Your task to perform on an android device: What's the weather going to be tomorrow? Image 0: 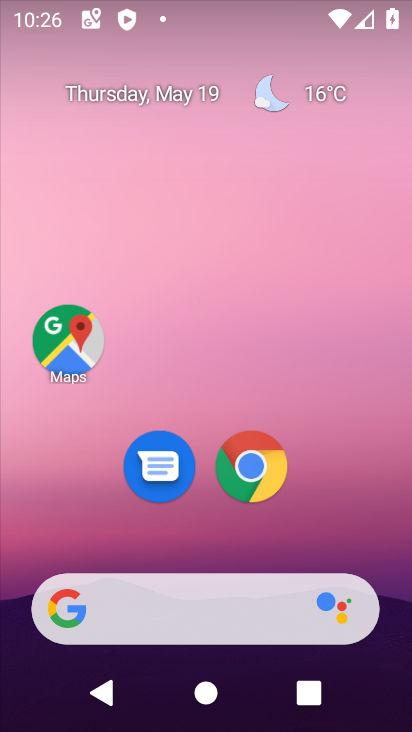
Step 0: click (253, 444)
Your task to perform on an android device: What's the weather going to be tomorrow? Image 1: 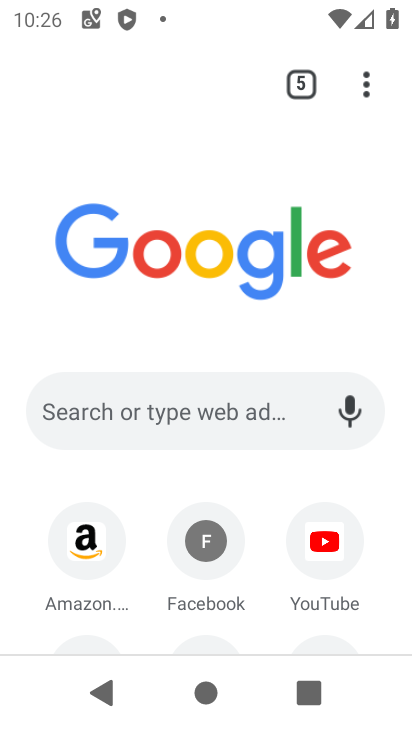
Step 1: click (230, 409)
Your task to perform on an android device: What's the weather going to be tomorrow? Image 2: 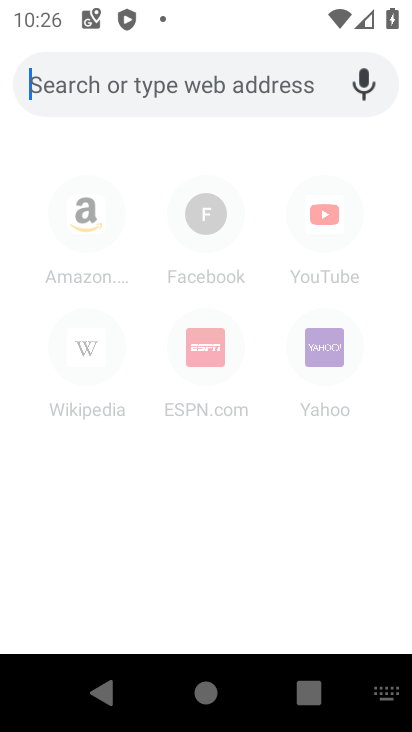
Step 2: type "What's the weather going to be tomorrow?"
Your task to perform on an android device: What's the weather going to be tomorrow? Image 3: 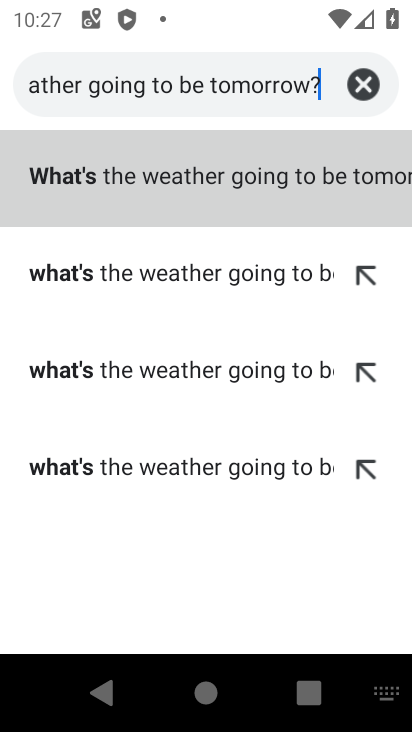
Step 3: click (353, 163)
Your task to perform on an android device: What's the weather going to be tomorrow? Image 4: 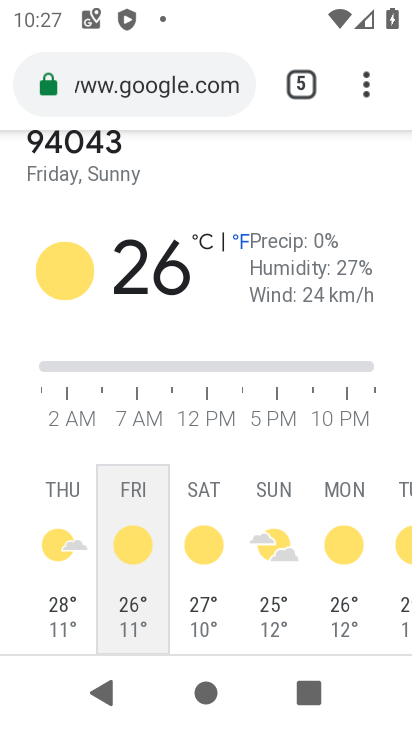
Step 4: task complete